Your task to perform on an android device: open chrome and create a bookmark for the current page Image 0: 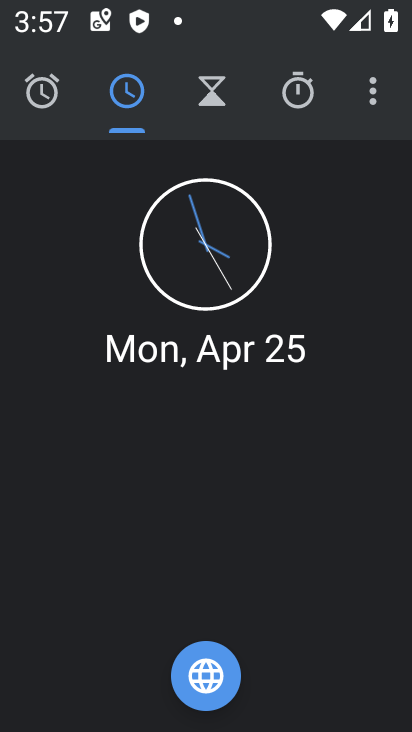
Step 0: press home button
Your task to perform on an android device: open chrome and create a bookmark for the current page Image 1: 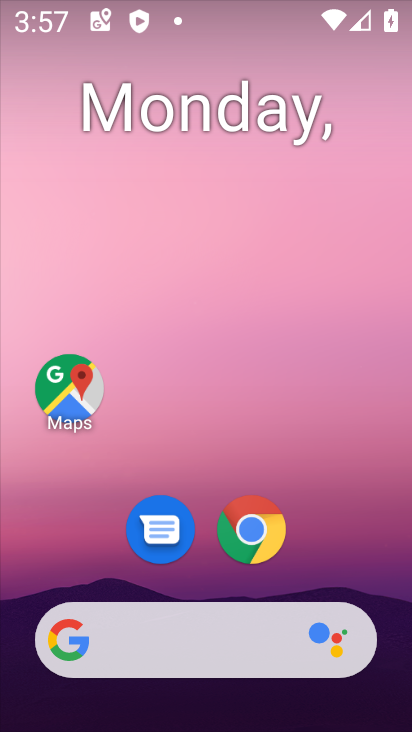
Step 1: click (259, 523)
Your task to perform on an android device: open chrome and create a bookmark for the current page Image 2: 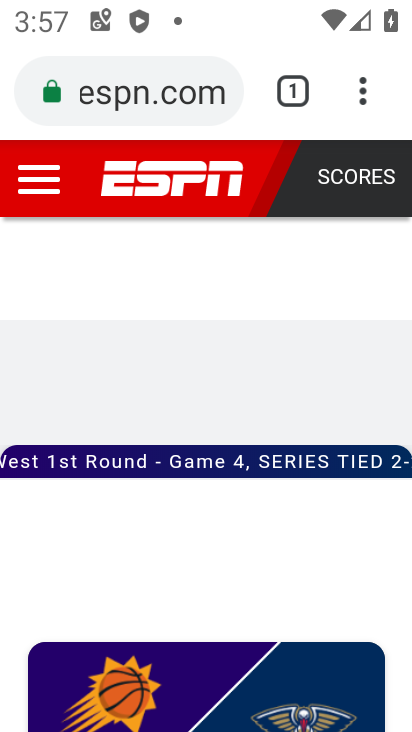
Step 2: task complete